Your task to perform on an android device: turn off airplane mode Image 0: 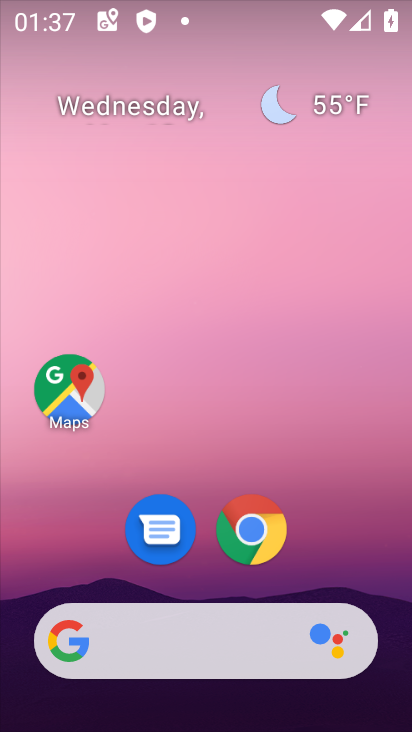
Step 0: drag from (221, 724) to (200, 141)
Your task to perform on an android device: turn off airplane mode Image 1: 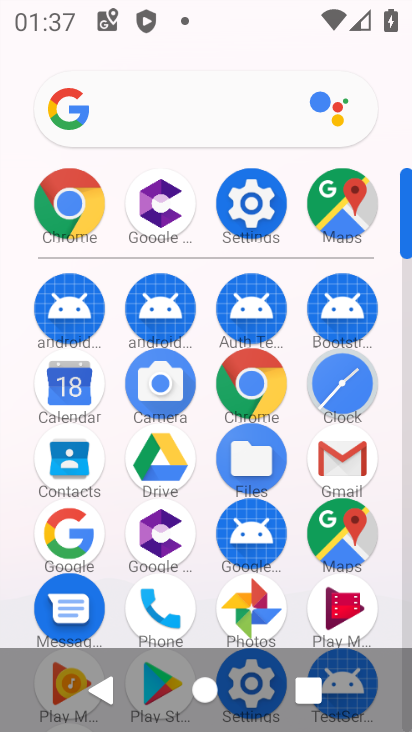
Step 1: click (253, 198)
Your task to perform on an android device: turn off airplane mode Image 2: 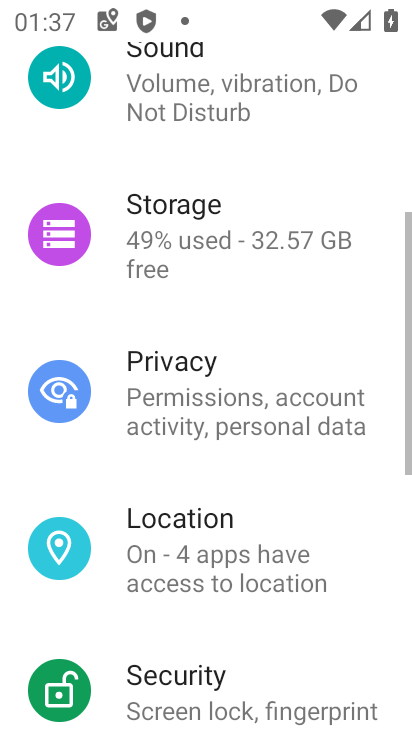
Step 2: drag from (245, 150) to (244, 521)
Your task to perform on an android device: turn off airplane mode Image 3: 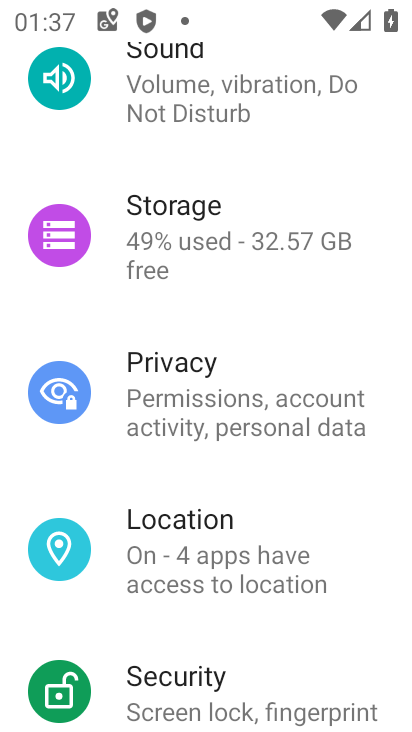
Step 3: drag from (242, 104) to (247, 511)
Your task to perform on an android device: turn off airplane mode Image 4: 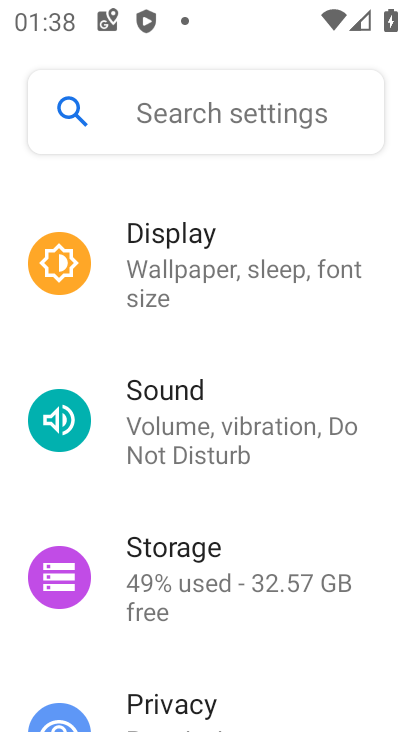
Step 4: drag from (198, 260) to (196, 608)
Your task to perform on an android device: turn off airplane mode Image 5: 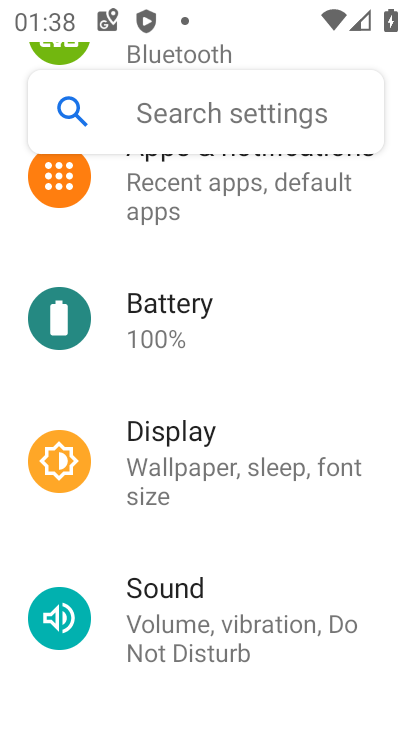
Step 5: drag from (214, 267) to (172, 590)
Your task to perform on an android device: turn off airplane mode Image 6: 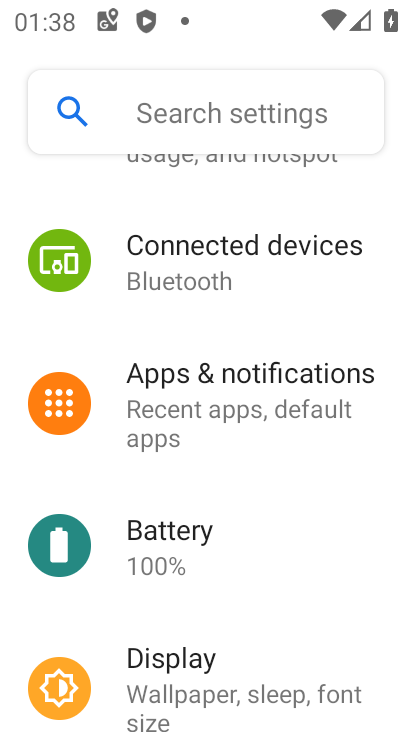
Step 6: drag from (190, 214) to (190, 653)
Your task to perform on an android device: turn off airplane mode Image 7: 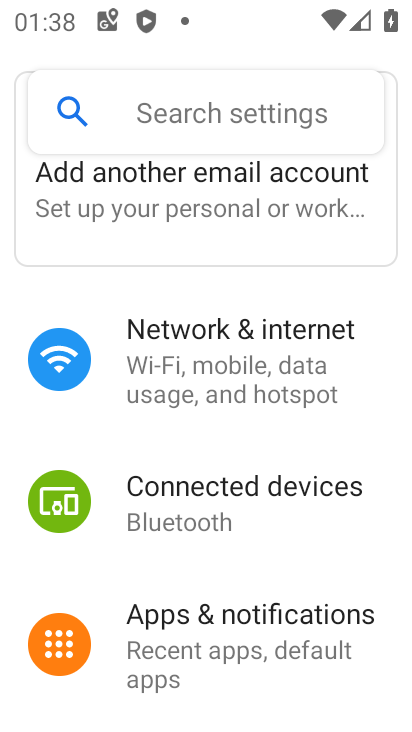
Step 7: click (200, 353)
Your task to perform on an android device: turn off airplane mode Image 8: 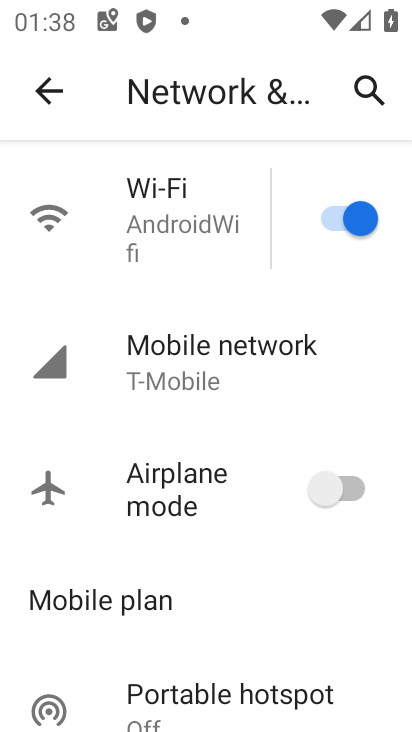
Step 8: task complete